Your task to perform on an android device: Open calendar and show me the fourth week of next month Image 0: 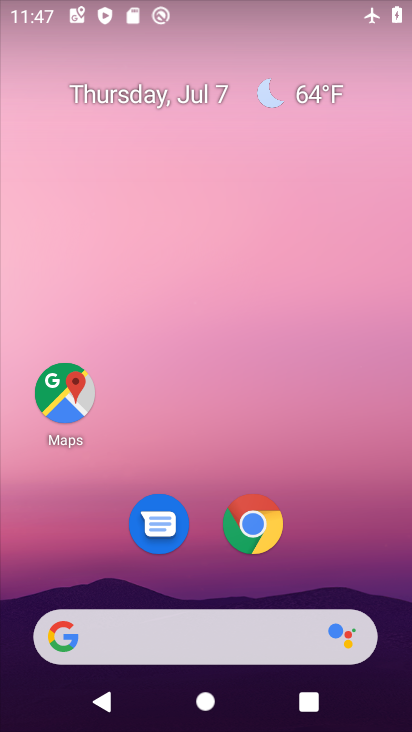
Step 0: drag from (221, 448) to (247, 20)
Your task to perform on an android device: Open calendar and show me the fourth week of next month Image 1: 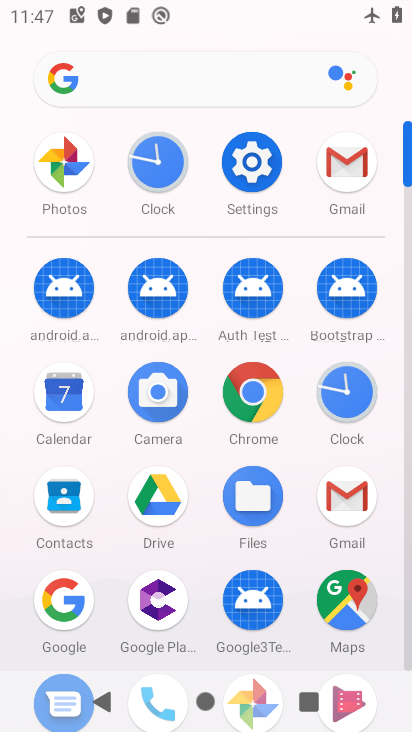
Step 1: click (66, 386)
Your task to perform on an android device: Open calendar and show me the fourth week of next month Image 2: 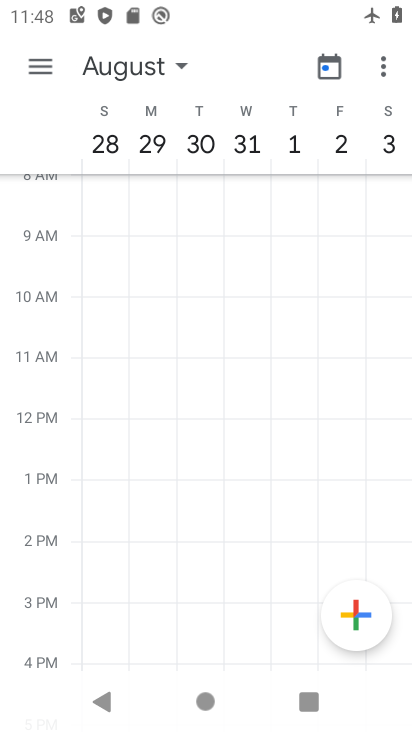
Step 2: task complete